Your task to perform on an android device: open app "Facebook Messenger" Image 0: 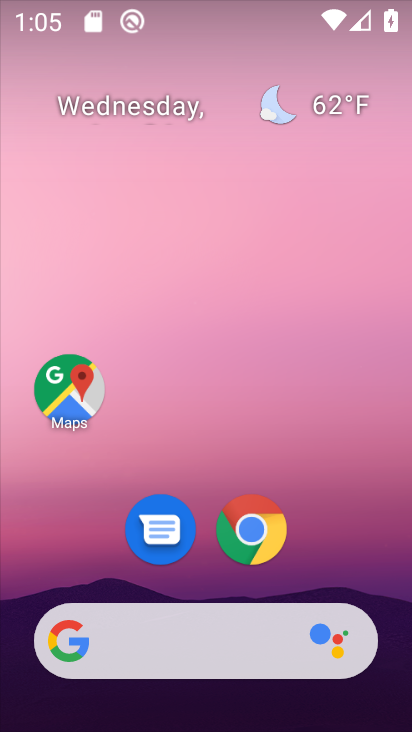
Step 0: drag from (207, 564) to (196, 256)
Your task to perform on an android device: open app "Facebook Messenger" Image 1: 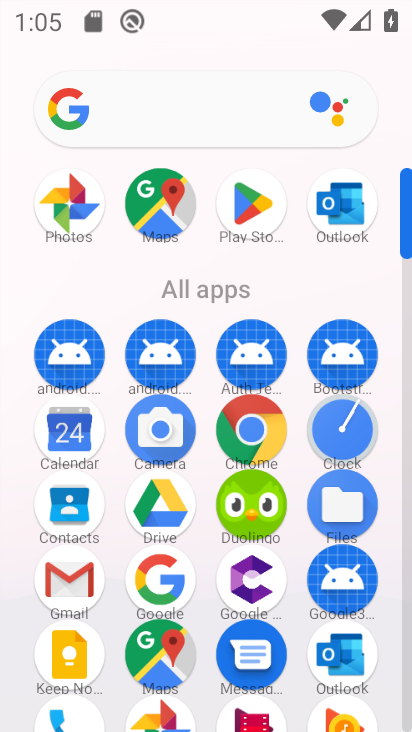
Step 1: click (247, 199)
Your task to perform on an android device: open app "Facebook Messenger" Image 2: 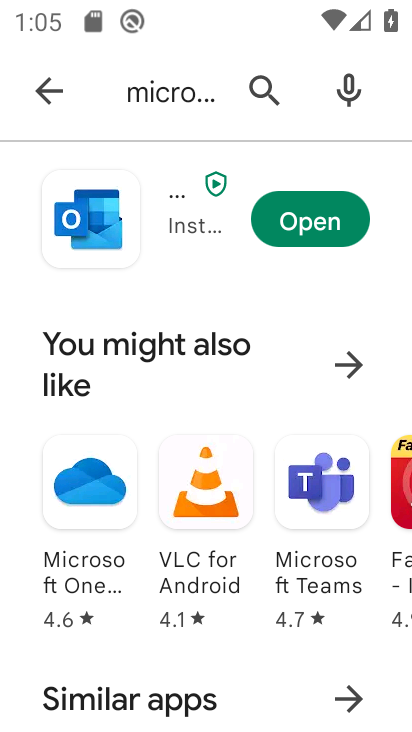
Step 2: click (60, 95)
Your task to perform on an android device: open app "Facebook Messenger" Image 3: 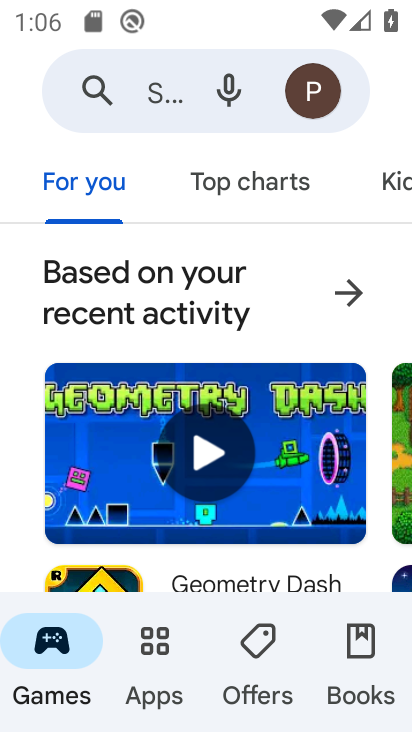
Step 3: click (124, 80)
Your task to perform on an android device: open app "Facebook Messenger" Image 4: 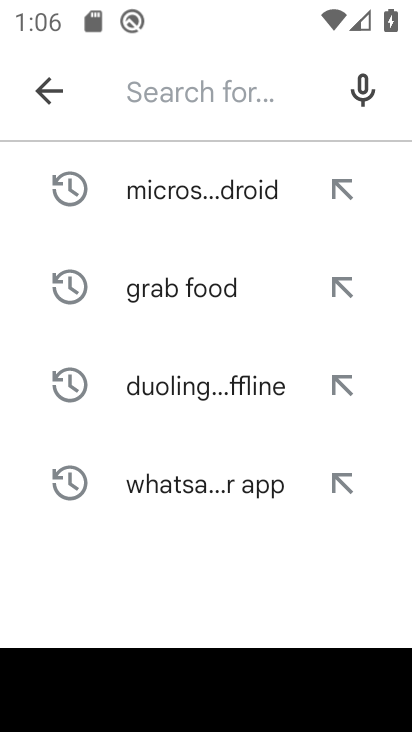
Step 4: type "Facebook Messenger "
Your task to perform on an android device: open app "Facebook Messenger" Image 5: 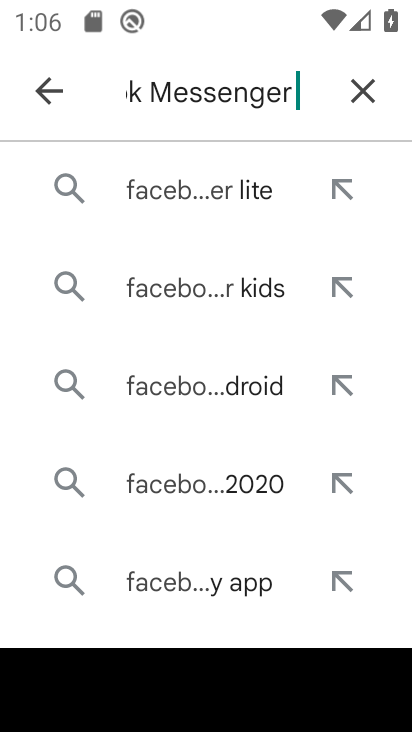
Step 5: click (230, 188)
Your task to perform on an android device: open app "Facebook Messenger" Image 6: 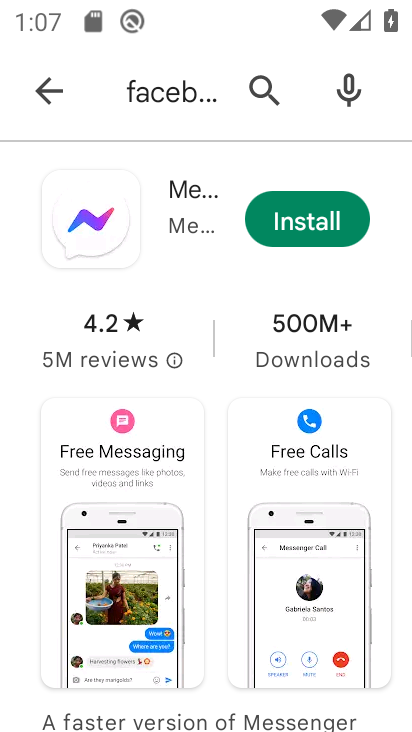
Step 6: task complete